Your task to perform on an android device: refresh tabs in the chrome app Image 0: 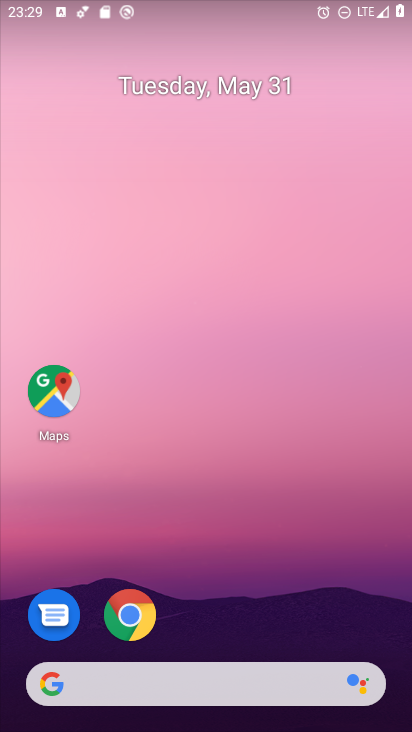
Step 0: click (131, 616)
Your task to perform on an android device: refresh tabs in the chrome app Image 1: 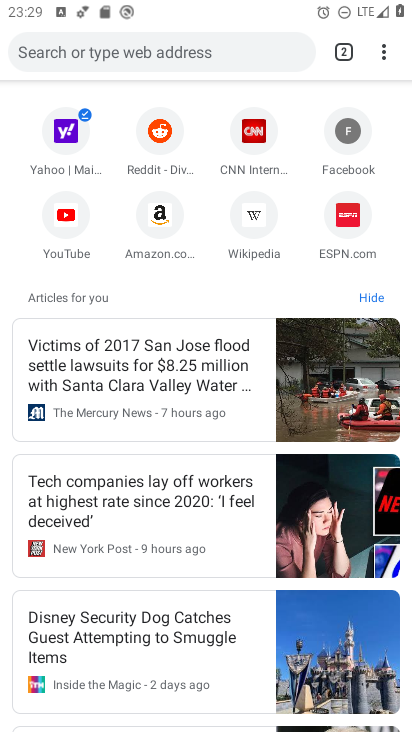
Step 1: click (386, 55)
Your task to perform on an android device: refresh tabs in the chrome app Image 2: 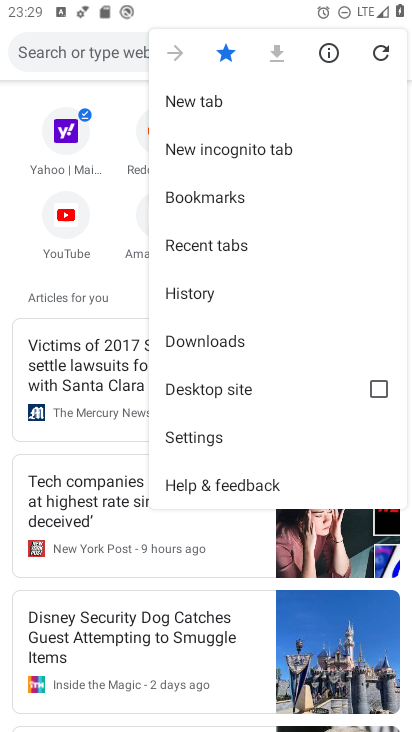
Step 2: click (379, 53)
Your task to perform on an android device: refresh tabs in the chrome app Image 3: 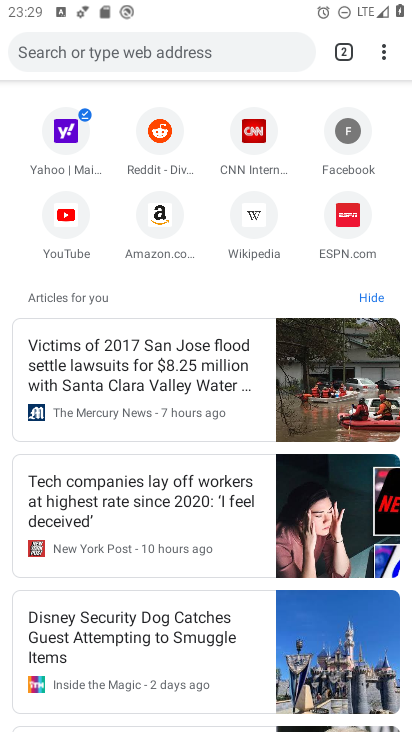
Step 3: task complete